Your task to perform on an android device: search for starred emails in the gmail app Image 0: 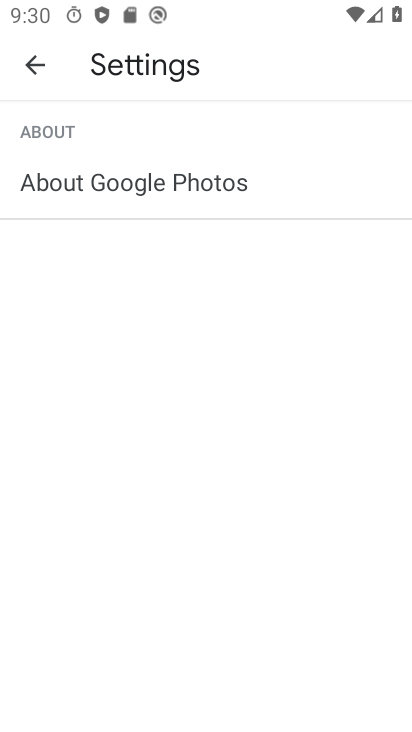
Step 0: press home button
Your task to perform on an android device: search for starred emails in the gmail app Image 1: 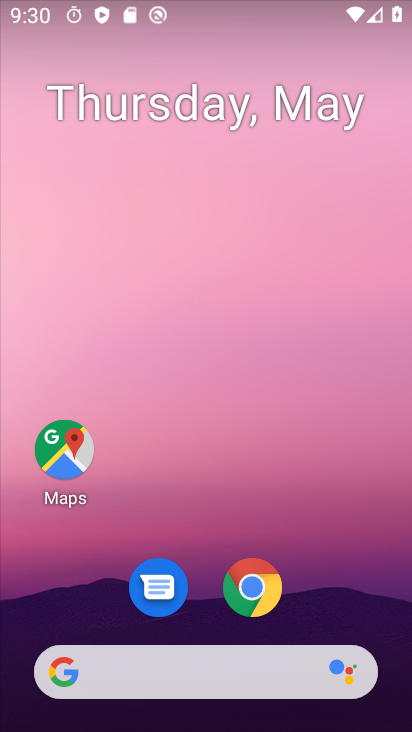
Step 1: drag from (362, 637) to (354, 30)
Your task to perform on an android device: search for starred emails in the gmail app Image 2: 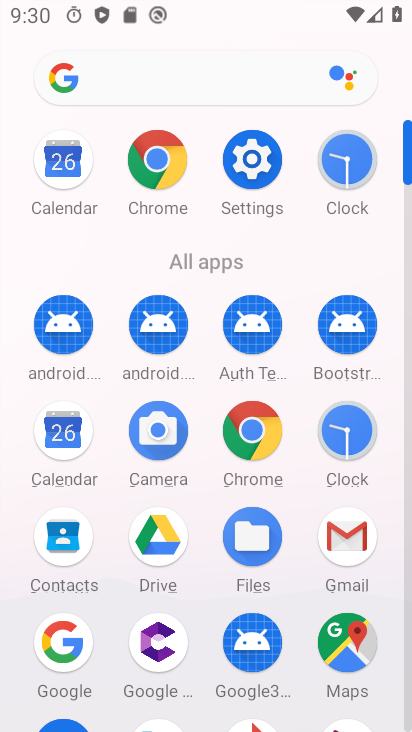
Step 2: click (340, 540)
Your task to perform on an android device: search for starred emails in the gmail app Image 3: 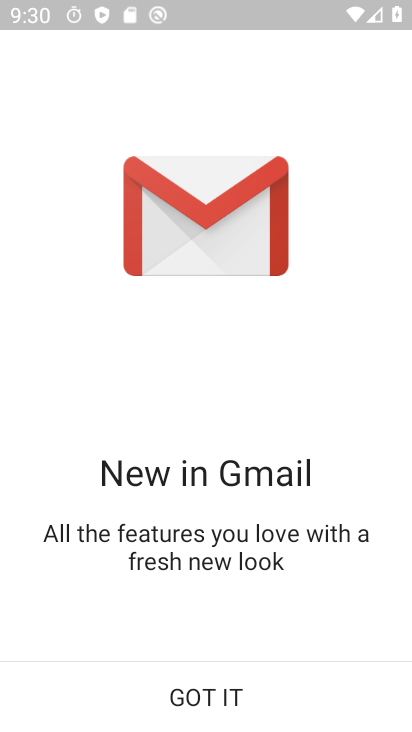
Step 3: click (199, 696)
Your task to perform on an android device: search for starred emails in the gmail app Image 4: 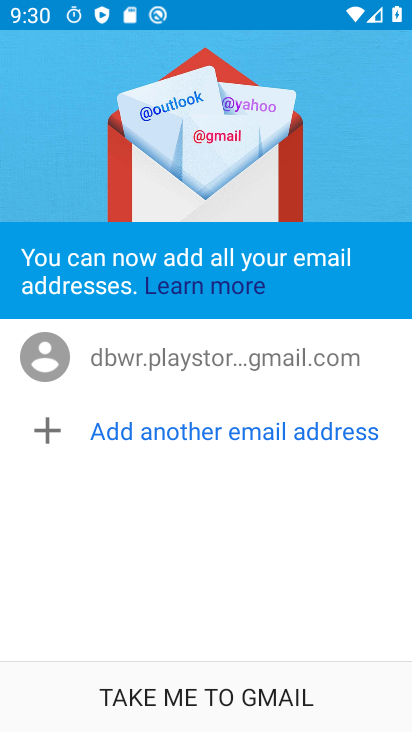
Step 4: click (199, 696)
Your task to perform on an android device: search for starred emails in the gmail app Image 5: 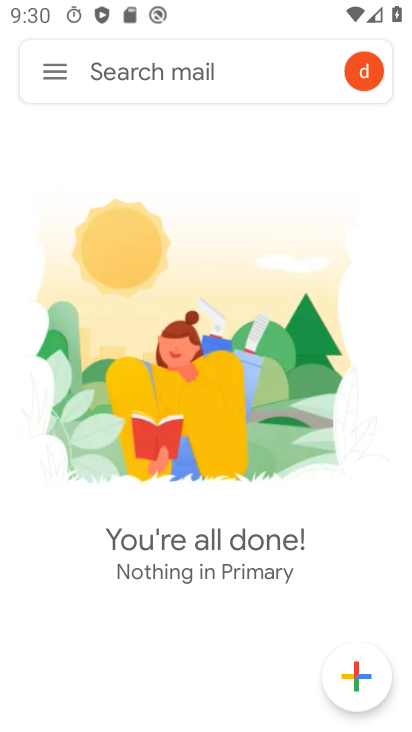
Step 5: click (49, 71)
Your task to perform on an android device: search for starred emails in the gmail app Image 6: 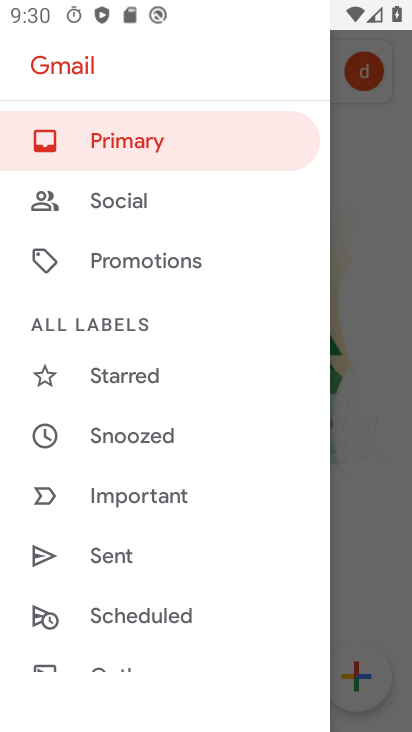
Step 6: click (101, 366)
Your task to perform on an android device: search for starred emails in the gmail app Image 7: 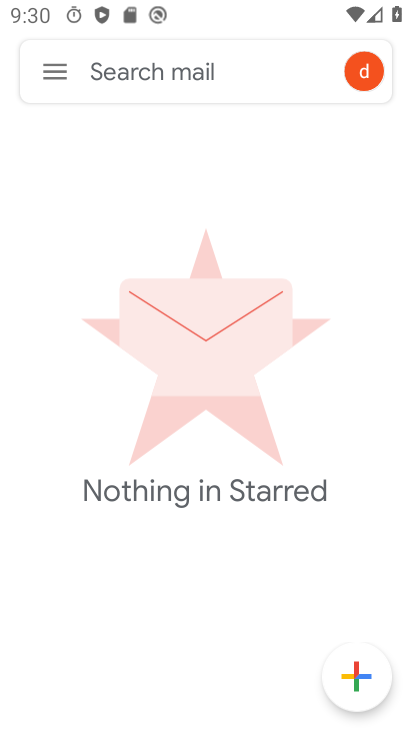
Step 7: task complete